Your task to perform on an android device: add a contact Image 0: 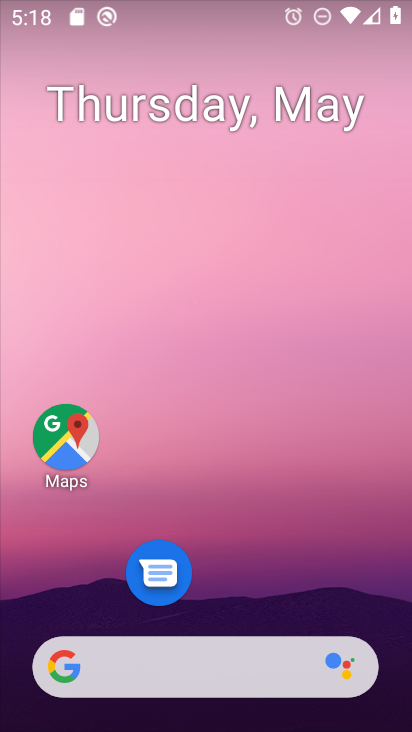
Step 0: drag from (266, 588) to (245, 10)
Your task to perform on an android device: add a contact Image 1: 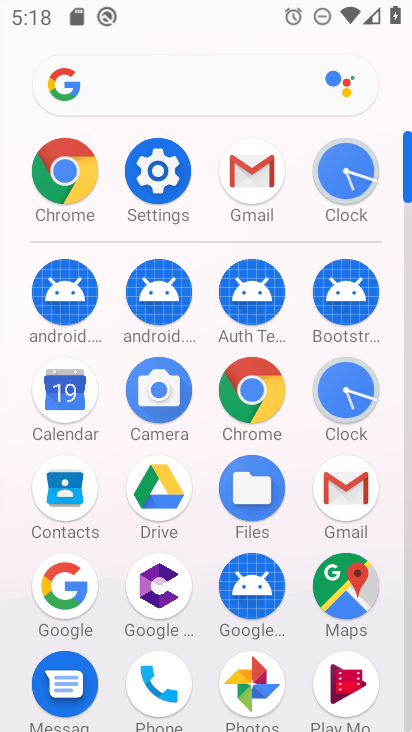
Step 1: drag from (200, 643) to (192, 190)
Your task to perform on an android device: add a contact Image 2: 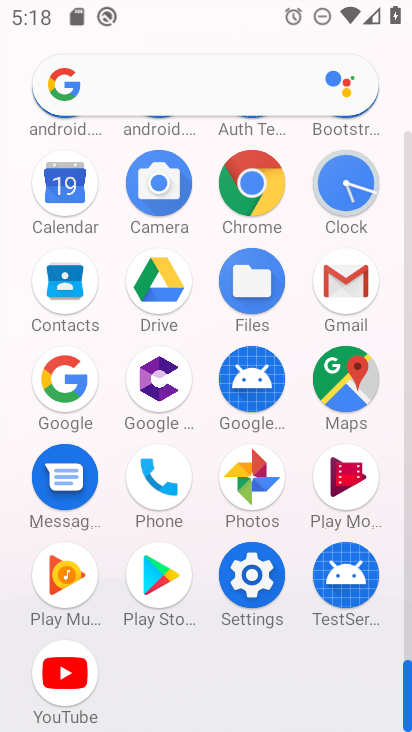
Step 2: click (78, 320)
Your task to perform on an android device: add a contact Image 3: 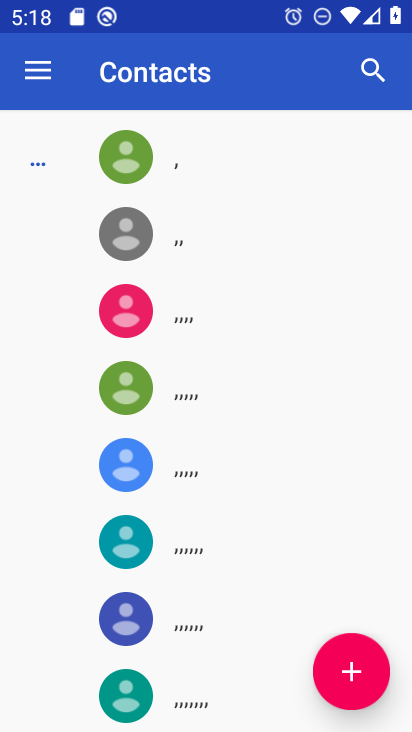
Step 3: click (338, 660)
Your task to perform on an android device: add a contact Image 4: 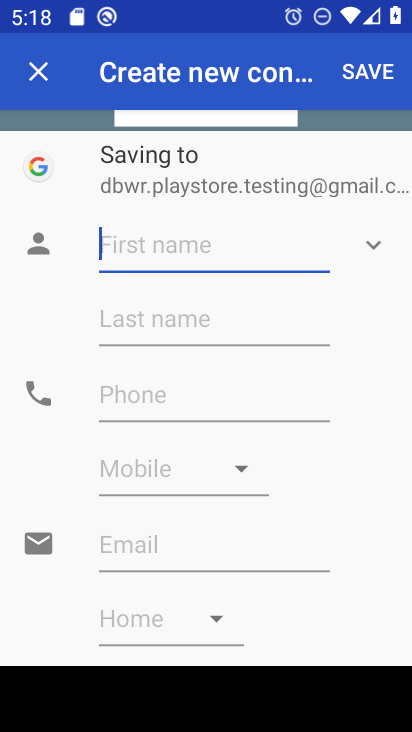
Step 4: click (128, 250)
Your task to perform on an android device: add a contact Image 5: 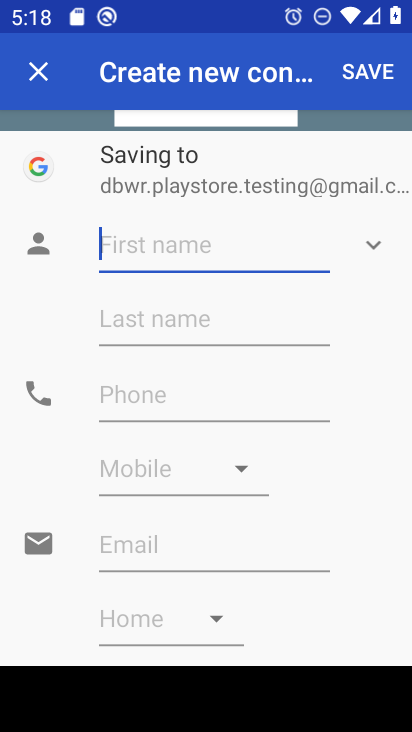
Step 5: type "Pullu"
Your task to perform on an android device: add a contact Image 6: 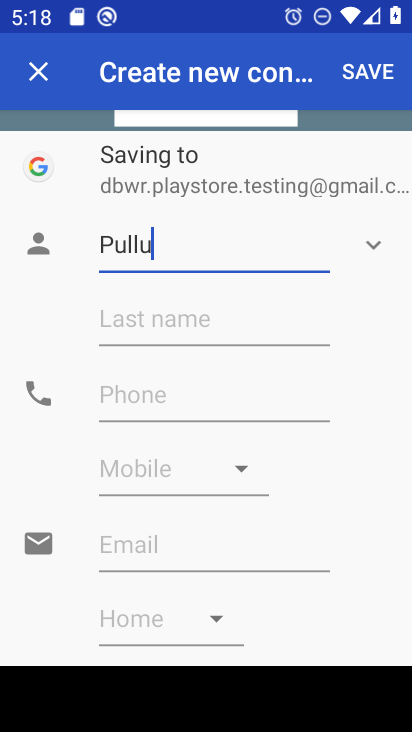
Step 6: click (193, 303)
Your task to perform on an android device: add a contact Image 7: 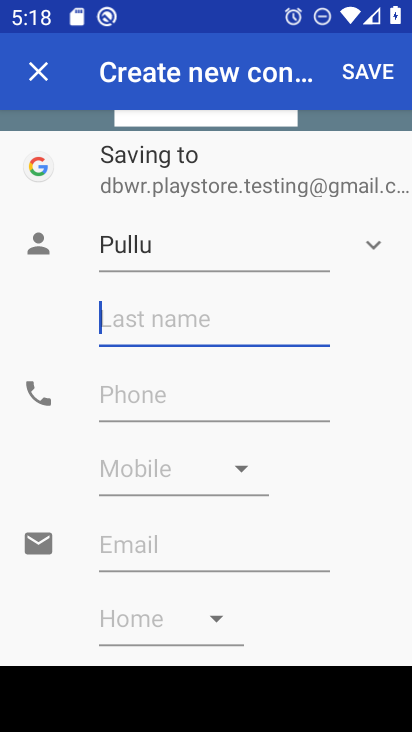
Step 7: type "sharma"
Your task to perform on an android device: add a contact Image 8: 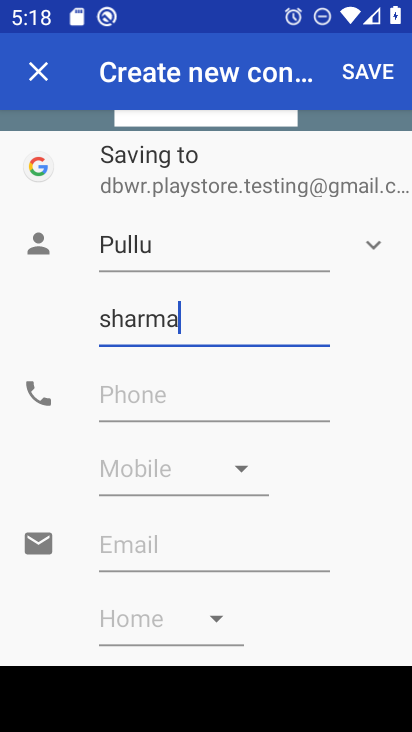
Step 8: click (138, 419)
Your task to perform on an android device: add a contact Image 9: 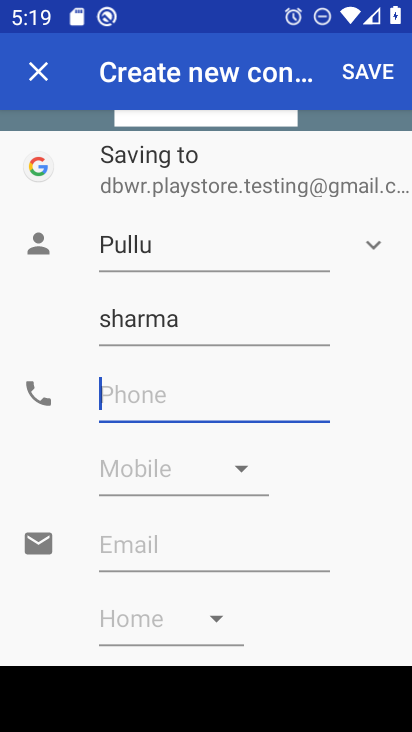
Step 9: type "9090989890"
Your task to perform on an android device: add a contact Image 10: 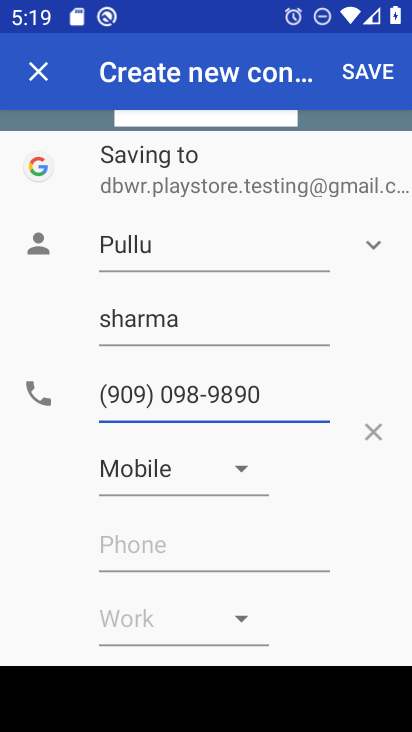
Step 10: click (370, 67)
Your task to perform on an android device: add a contact Image 11: 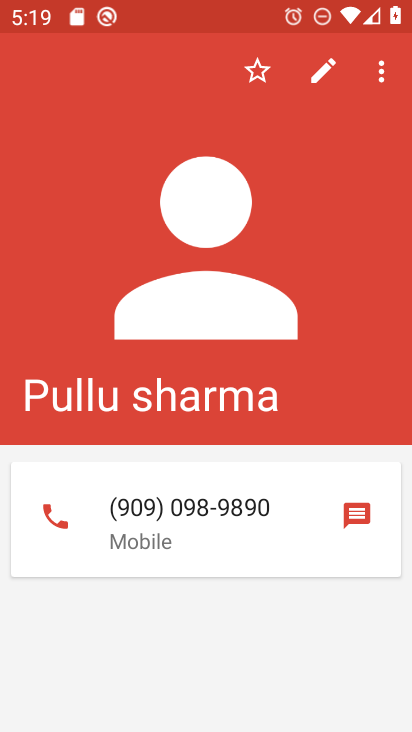
Step 11: task complete